Your task to perform on an android device: Is it going to rain tomorrow? Image 0: 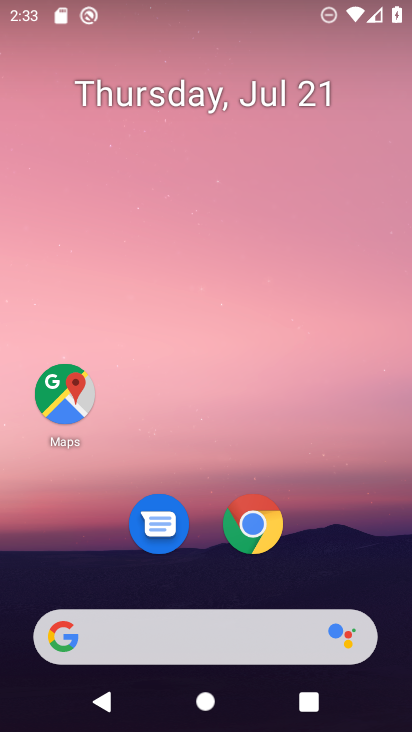
Step 0: click (181, 638)
Your task to perform on an android device: Is it going to rain tomorrow? Image 1: 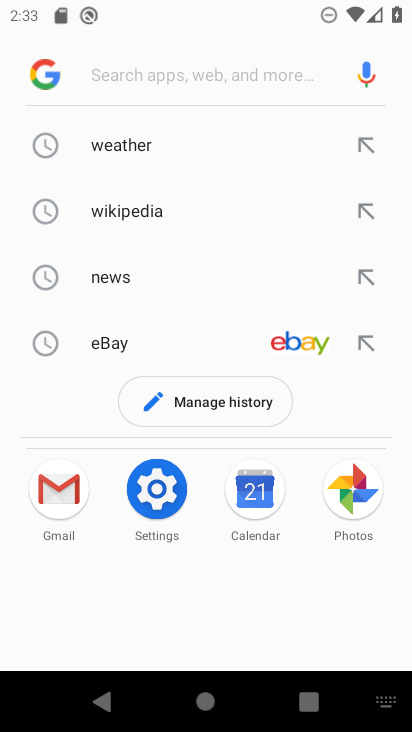
Step 1: click (131, 138)
Your task to perform on an android device: Is it going to rain tomorrow? Image 2: 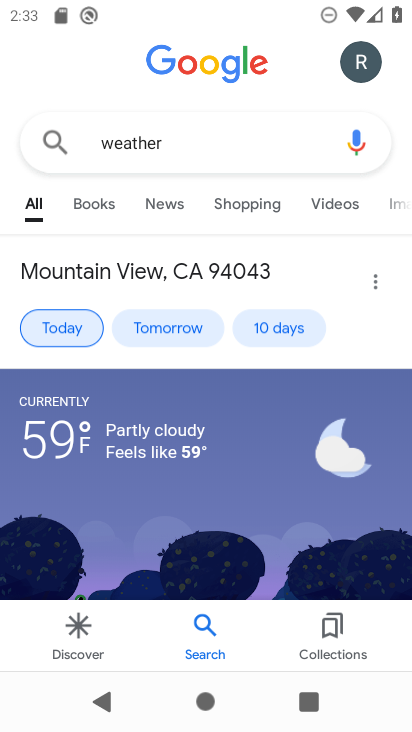
Step 2: click (175, 326)
Your task to perform on an android device: Is it going to rain tomorrow? Image 3: 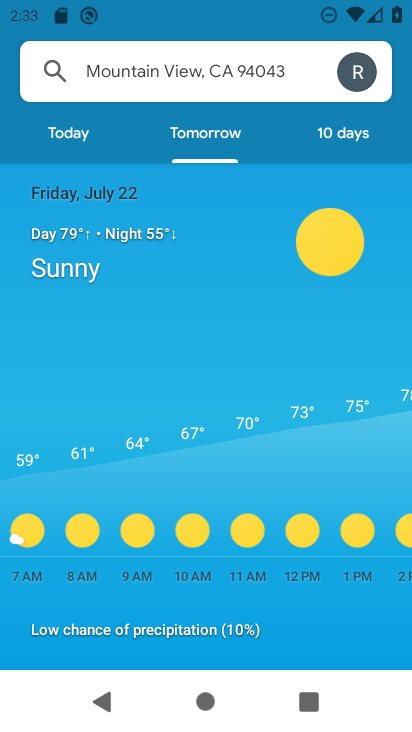
Step 3: task complete